Your task to perform on an android device: refresh tabs in the chrome app Image 0: 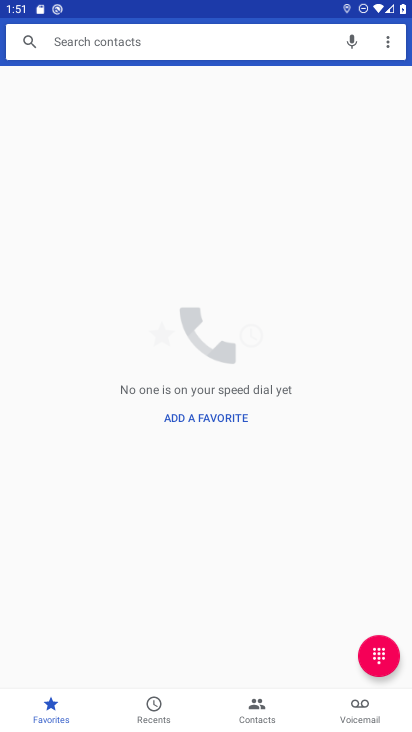
Step 0: press home button
Your task to perform on an android device: refresh tabs in the chrome app Image 1: 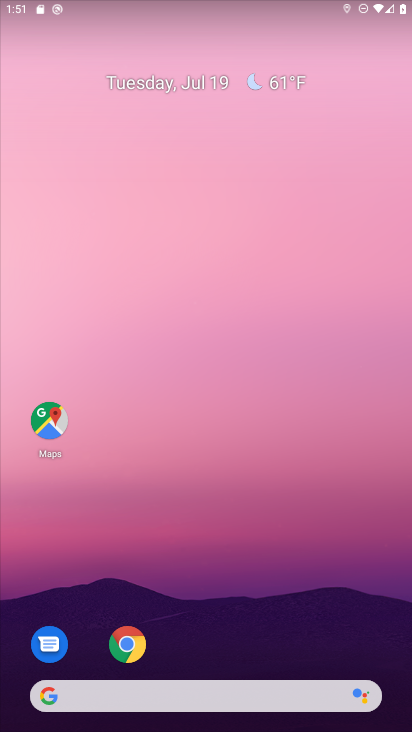
Step 1: drag from (212, 671) to (173, 114)
Your task to perform on an android device: refresh tabs in the chrome app Image 2: 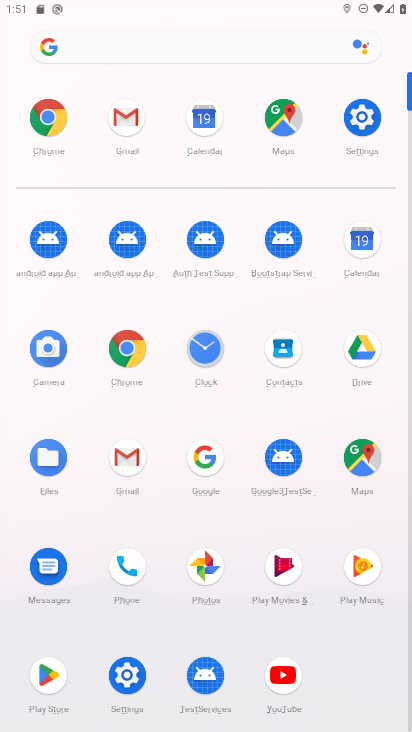
Step 2: click (118, 359)
Your task to perform on an android device: refresh tabs in the chrome app Image 3: 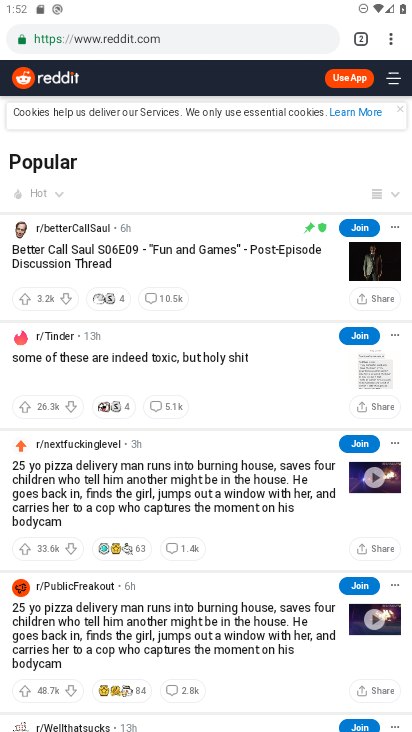
Step 3: click (394, 41)
Your task to perform on an android device: refresh tabs in the chrome app Image 4: 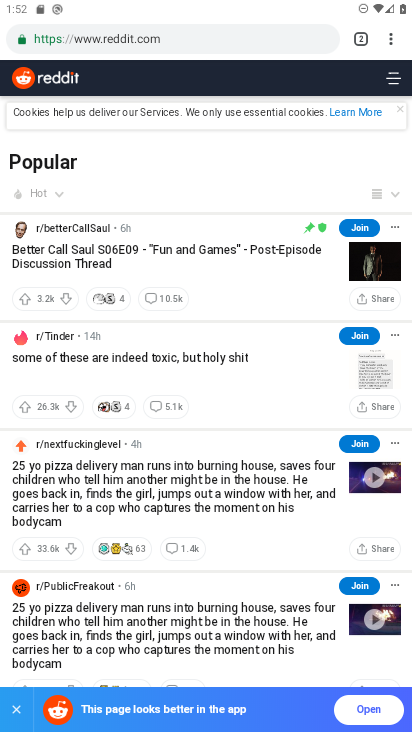
Step 4: click (385, 37)
Your task to perform on an android device: refresh tabs in the chrome app Image 5: 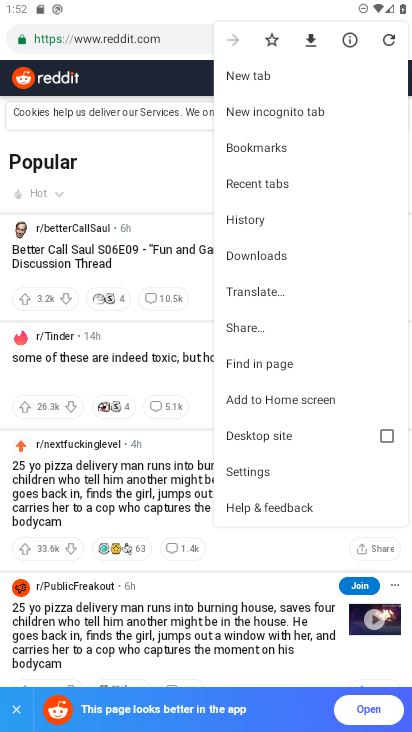
Step 5: click (393, 39)
Your task to perform on an android device: refresh tabs in the chrome app Image 6: 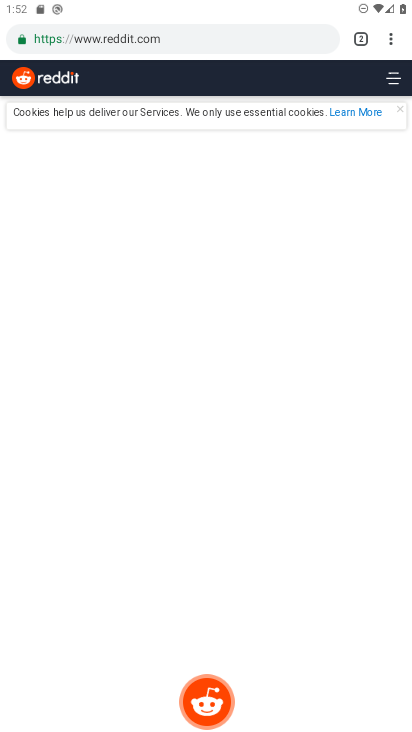
Step 6: task complete